Your task to perform on an android device: allow notifications from all sites in the chrome app Image 0: 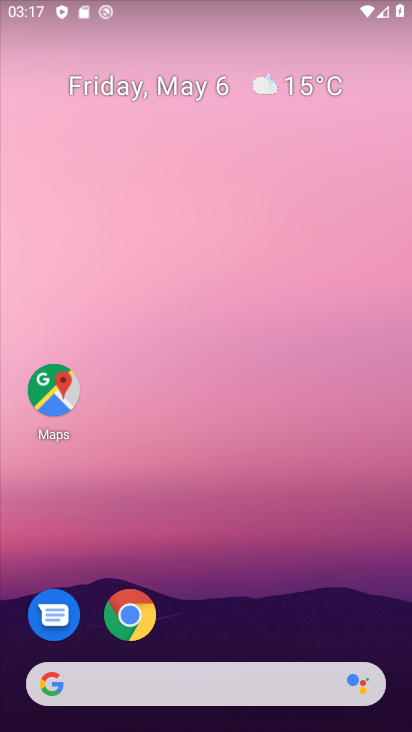
Step 0: drag from (343, 641) to (133, 13)
Your task to perform on an android device: allow notifications from all sites in the chrome app Image 1: 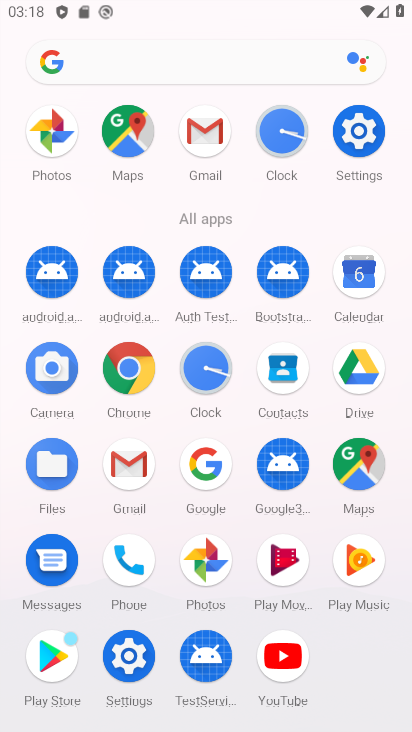
Step 1: click (119, 369)
Your task to perform on an android device: allow notifications from all sites in the chrome app Image 2: 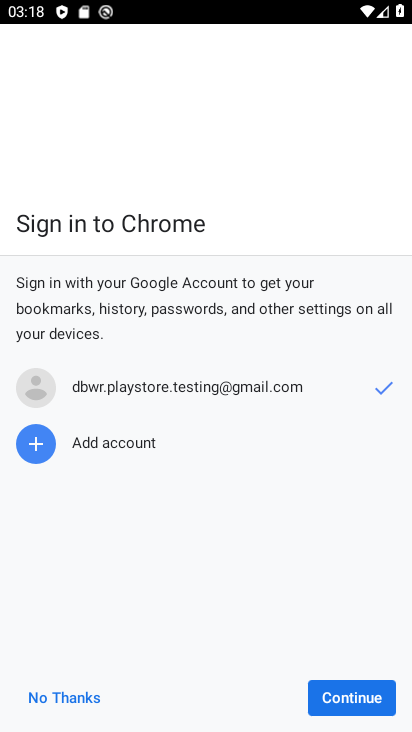
Step 2: click (358, 692)
Your task to perform on an android device: allow notifications from all sites in the chrome app Image 3: 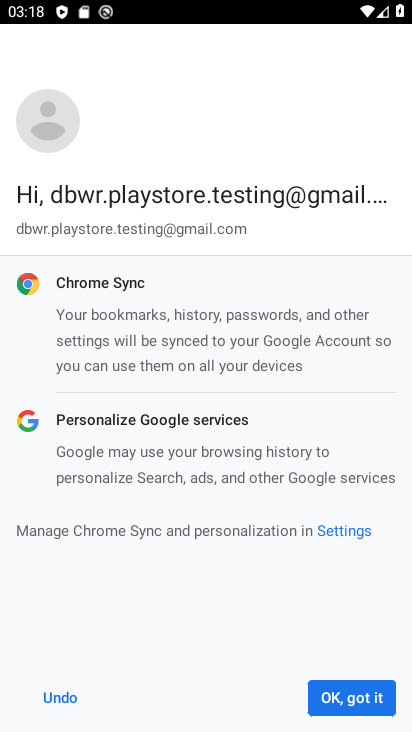
Step 3: click (357, 693)
Your task to perform on an android device: allow notifications from all sites in the chrome app Image 4: 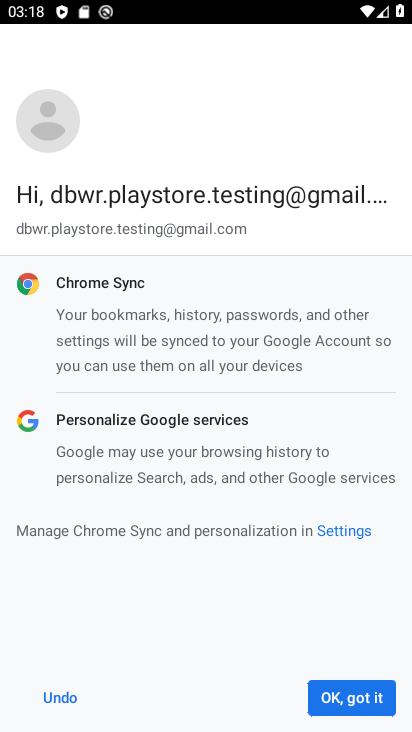
Step 4: click (357, 694)
Your task to perform on an android device: allow notifications from all sites in the chrome app Image 5: 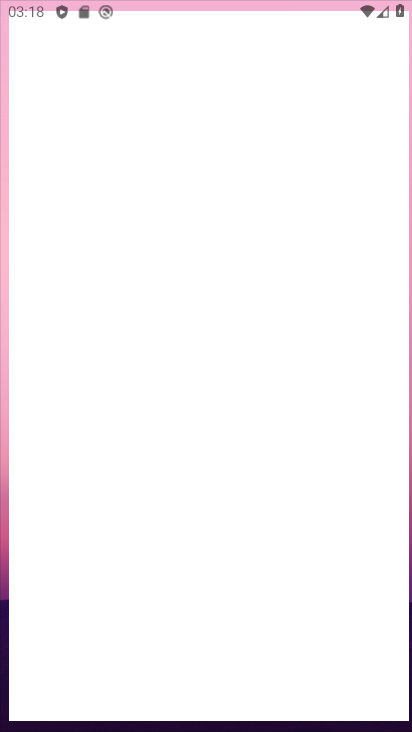
Step 5: click (356, 695)
Your task to perform on an android device: allow notifications from all sites in the chrome app Image 6: 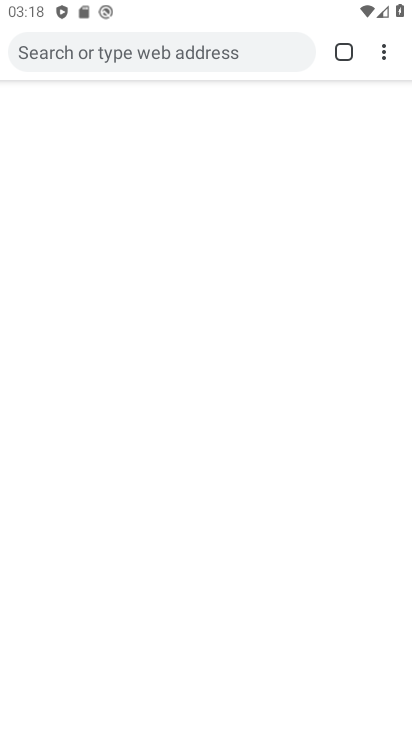
Step 6: click (356, 695)
Your task to perform on an android device: allow notifications from all sites in the chrome app Image 7: 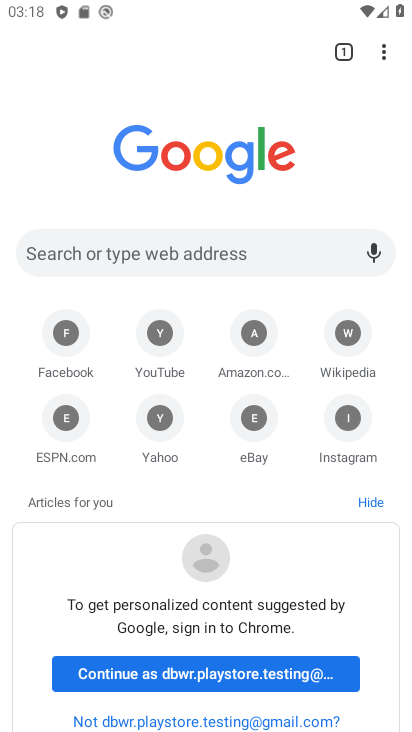
Step 7: click (349, 684)
Your task to perform on an android device: allow notifications from all sites in the chrome app Image 8: 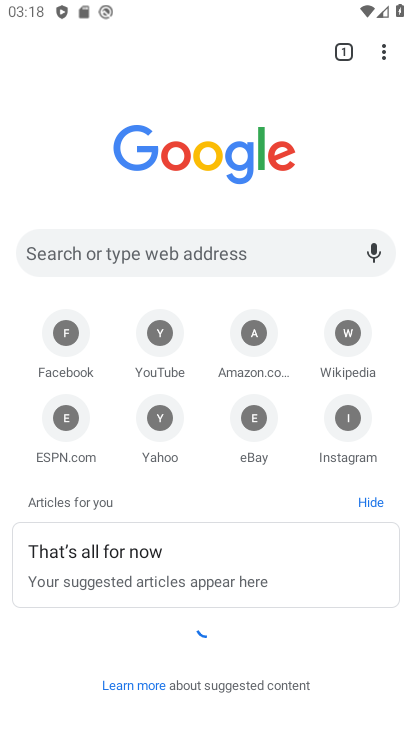
Step 8: click (340, 699)
Your task to perform on an android device: allow notifications from all sites in the chrome app Image 9: 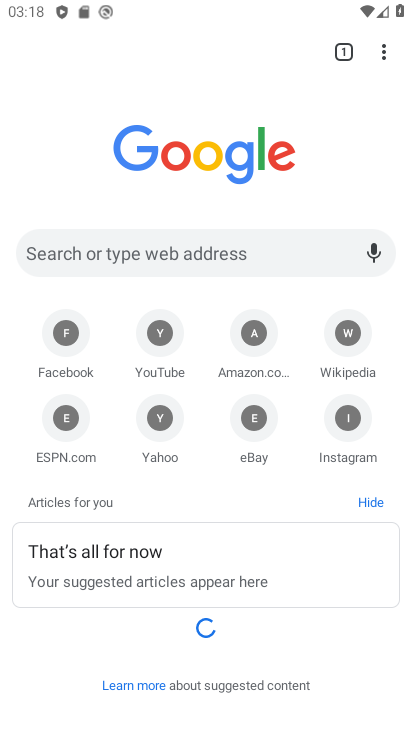
Step 9: click (354, 687)
Your task to perform on an android device: allow notifications from all sites in the chrome app Image 10: 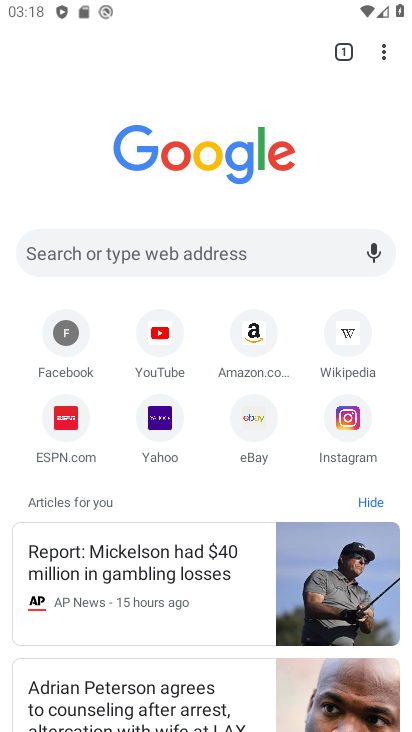
Step 10: drag from (381, 53) to (204, 446)
Your task to perform on an android device: allow notifications from all sites in the chrome app Image 11: 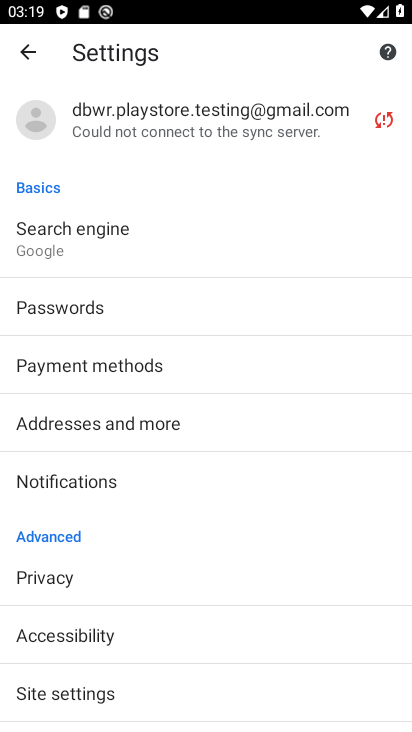
Step 11: click (57, 487)
Your task to perform on an android device: allow notifications from all sites in the chrome app Image 12: 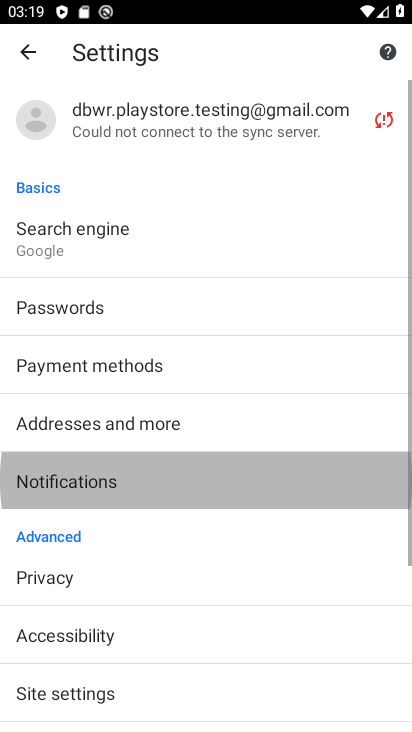
Step 12: click (57, 487)
Your task to perform on an android device: allow notifications from all sites in the chrome app Image 13: 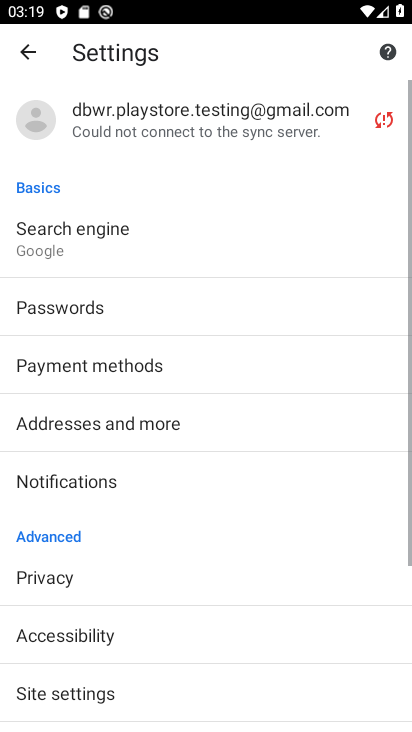
Step 13: click (58, 487)
Your task to perform on an android device: allow notifications from all sites in the chrome app Image 14: 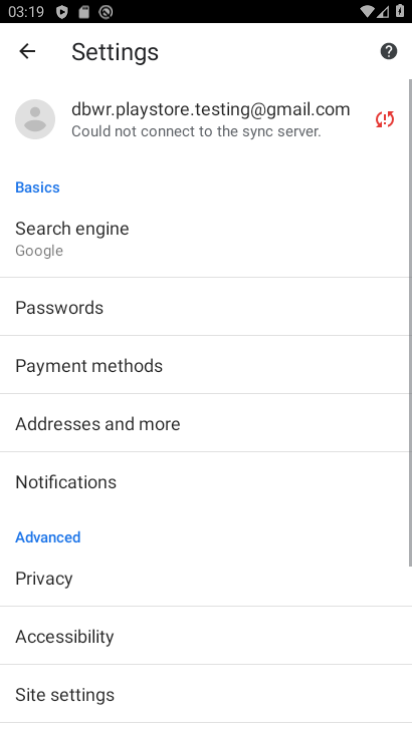
Step 14: click (58, 487)
Your task to perform on an android device: allow notifications from all sites in the chrome app Image 15: 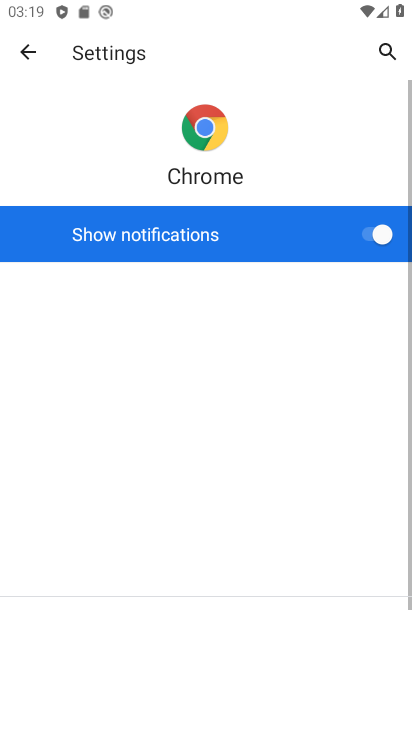
Step 15: click (59, 487)
Your task to perform on an android device: allow notifications from all sites in the chrome app Image 16: 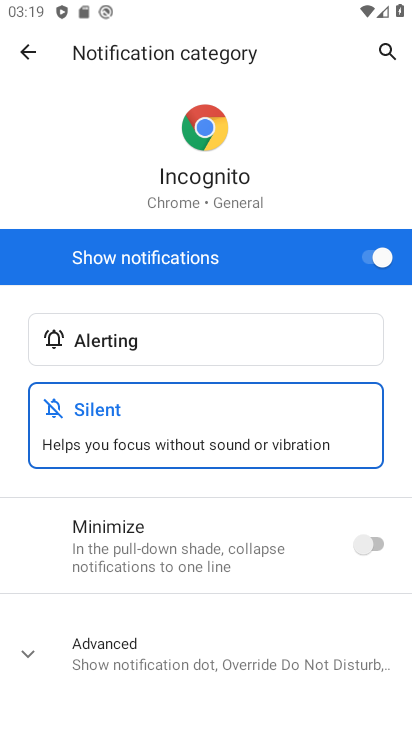
Step 16: task complete